Your task to perform on an android device: Open calendar and show me the third week of next month Image 0: 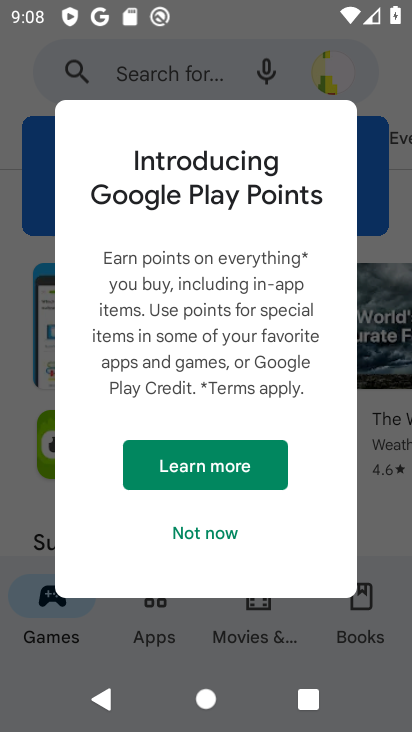
Step 0: press home button
Your task to perform on an android device: Open calendar and show me the third week of next month Image 1: 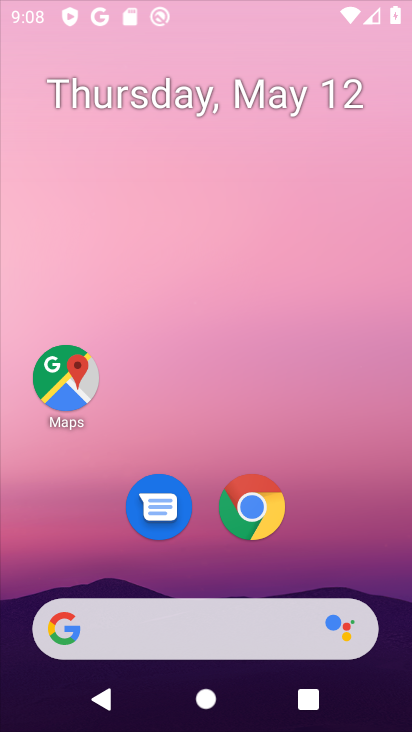
Step 1: drag from (221, 572) to (221, 86)
Your task to perform on an android device: Open calendar and show me the third week of next month Image 2: 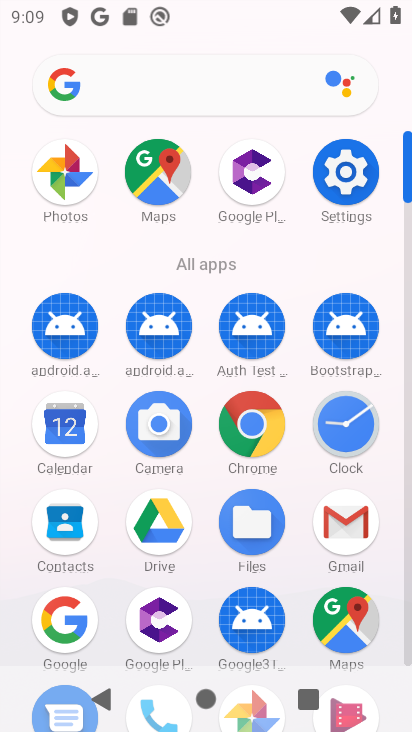
Step 2: click (83, 440)
Your task to perform on an android device: Open calendar and show me the third week of next month Image 3: 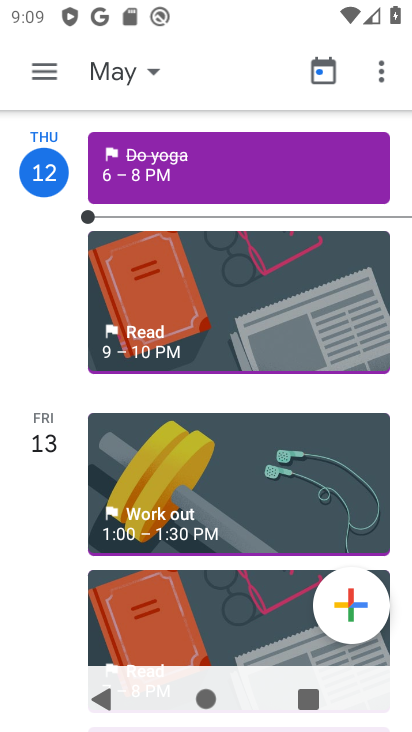
Step 3: click (148, 72)
Your task to perform on an android device: Open calendar and show me the third week of next month Image 4: 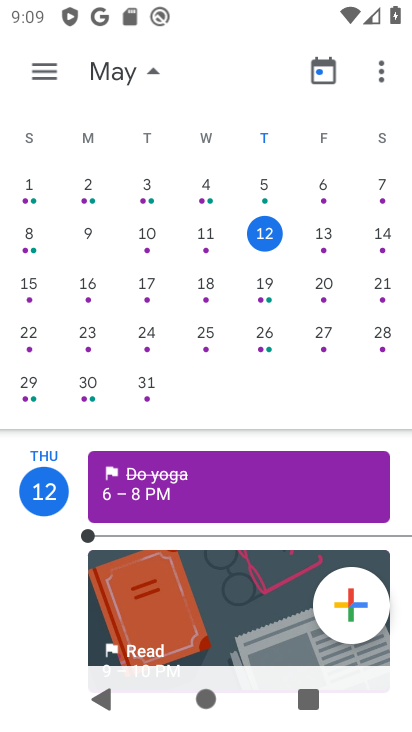
Step 4: drag from (310, 255) to (0, 279)
Your task to perform on an android device: Open calendar and show me the third week of next month Image 5: 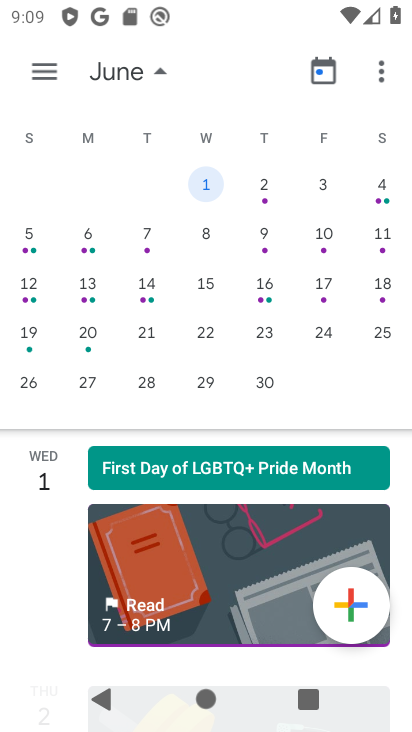
Step 5: click (41, 288)
Your task to perform on an android device: Open calendar and show me the third week of next month Image 6: 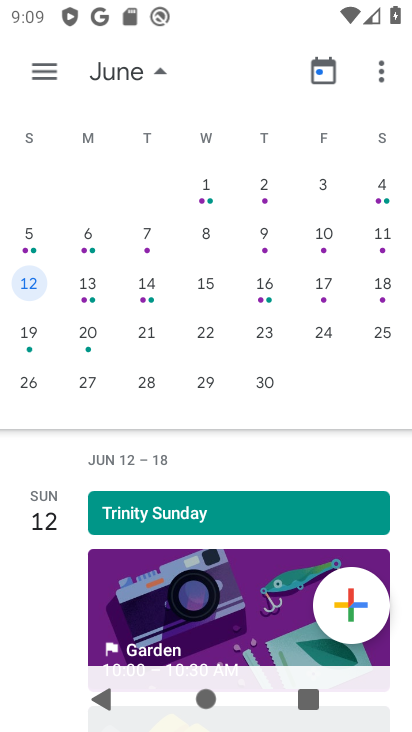
Step 6: click (91, 282)
Your task to perform on an android device: Open calendar and show me the third week of next month Image 7: 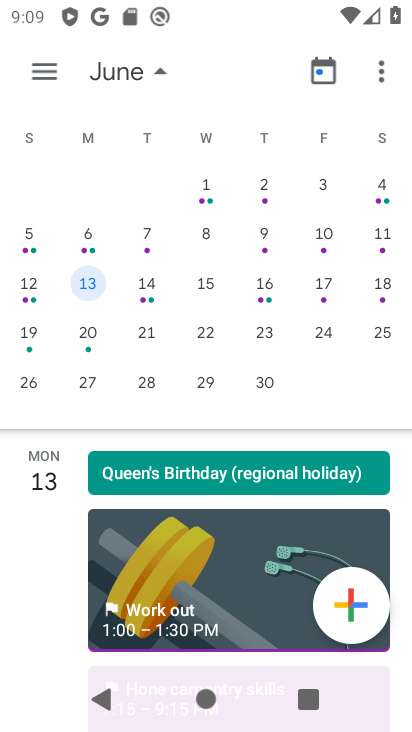
Step 7: click (130, 280)
Your task to perform on an android device: Open calendar and show me the third week of next month Image 8: 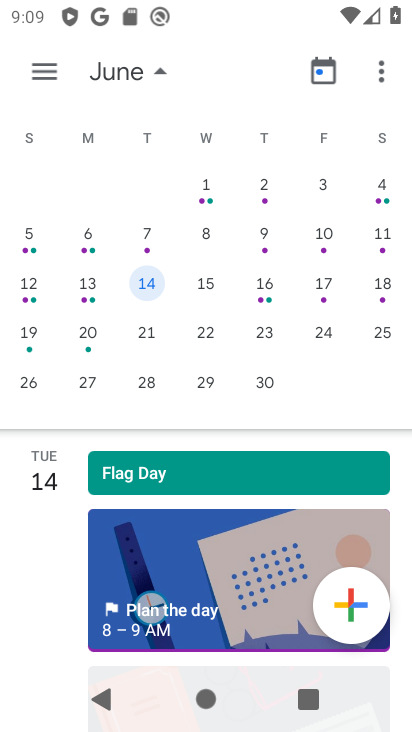
Step 8: click (177, 280)
Your task to perform on an android device: Open calendar and show me the third week of next month Image 9: 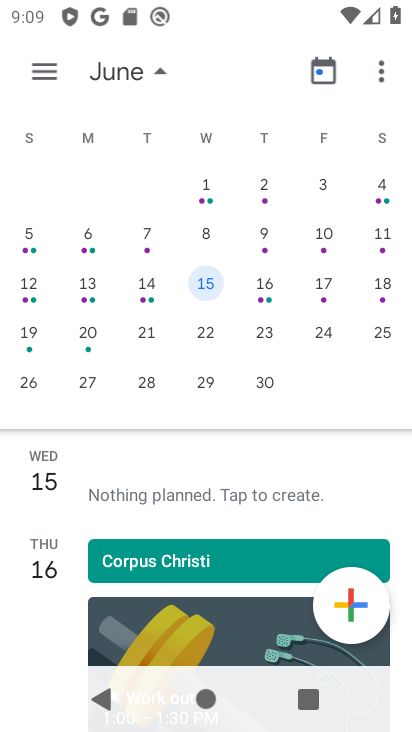
Step 9: task complete